Your task to perform on an android device: Search for pizza restaurants on Maps Image 0: 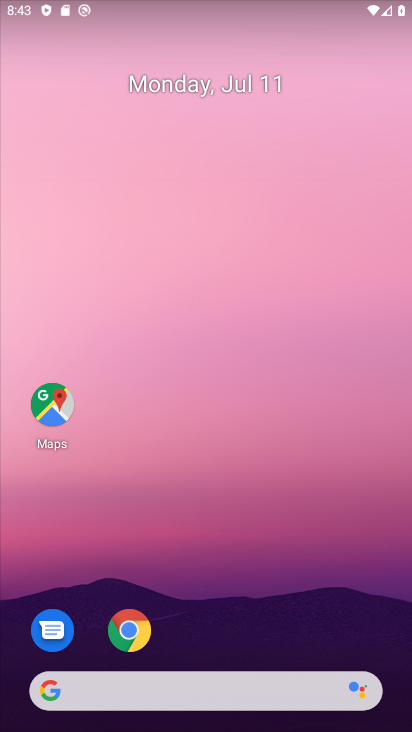
Step 0: click (47, 401)
Your task to perform on an android device: Search for pizza restaurants on Maps Image 1: 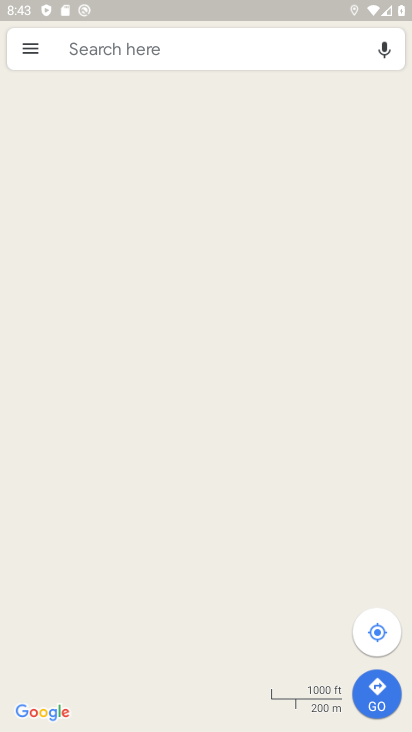
Step 1: click (151, 46)
Your task to perform on an android device: Search for pizza restaurants on Maps Image 2: 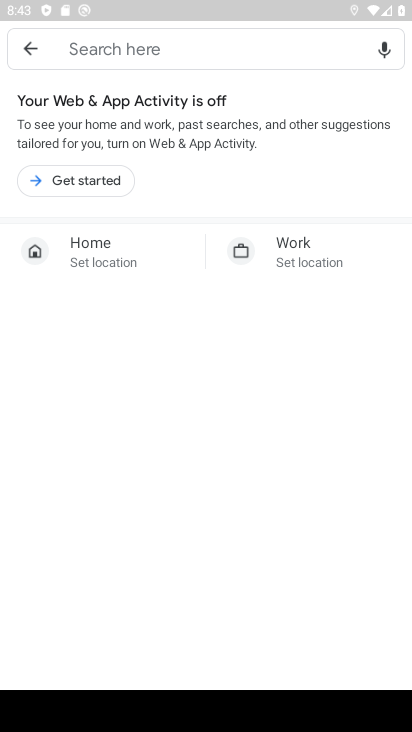
Step 2: click (126, 45)
Your task to perform on an android device: Search for pizza restaurants on Maps Image 3: 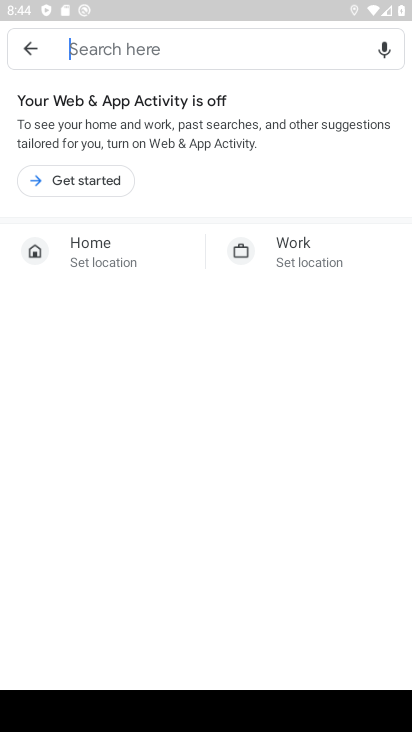
Step 3: type "pizza restaurant"
Your task to perform on an android device: Search for pizza restaurants on Maps Image 4: 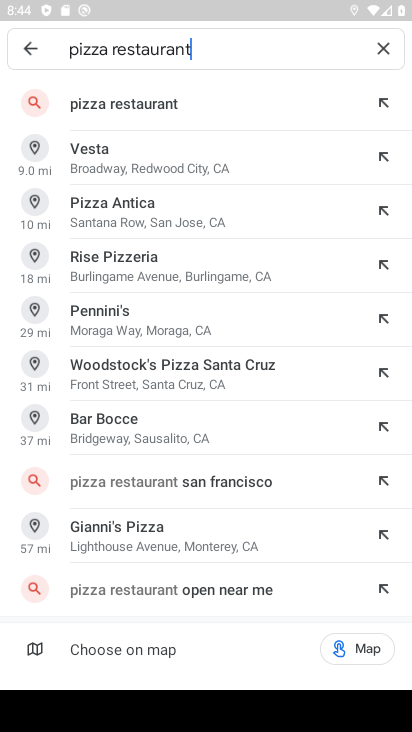
Step 4: click (217, 103)
Your task to perform on an android device: Search for pizza restaurants on Maps Image 5: 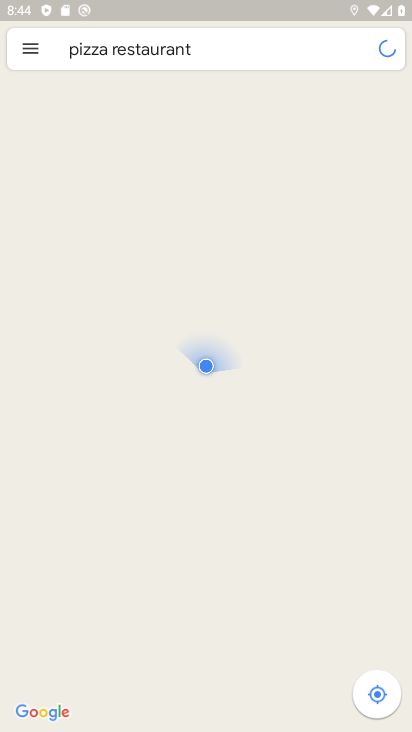
Step 5: click (156, 118)
Your task to perform on an android device: Search for pizza restaurants on Maps Image 6: 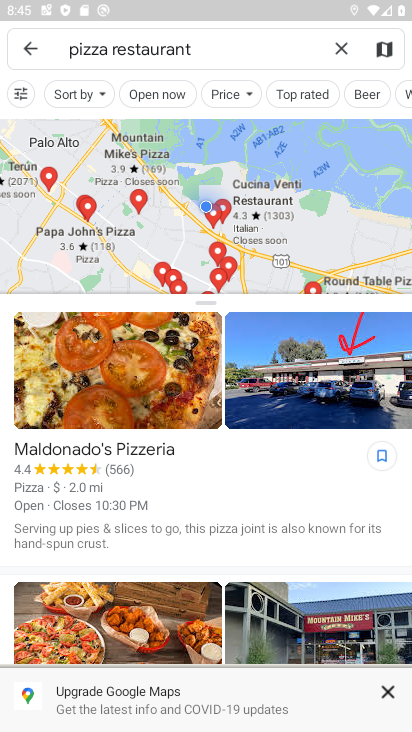
Step 6: task complete